Your task to perform on an android device: Open ESPN.com Image 0: 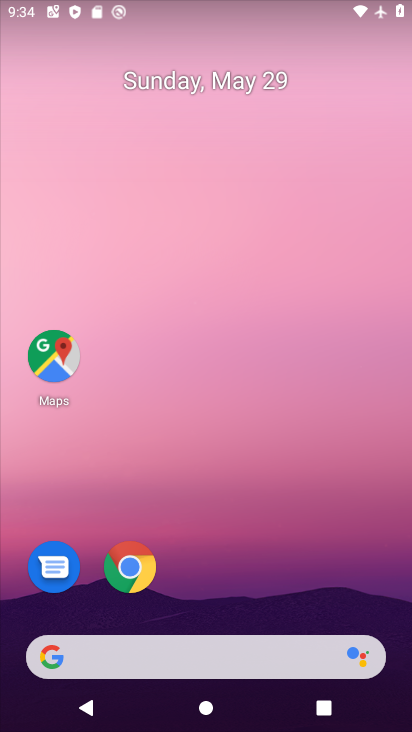
Step 0: click (134, 567)
Your task to perform on an android device: Open ESPN.com Image 1: 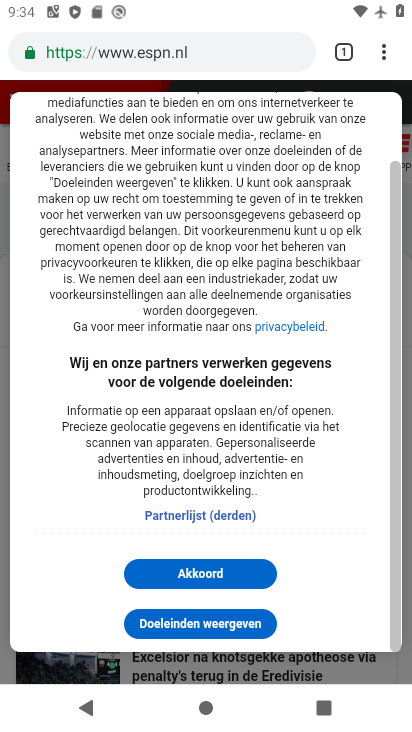
Step 1: task complete